Your task to perform on an android device: Open Chrome and go to settings Image 0: 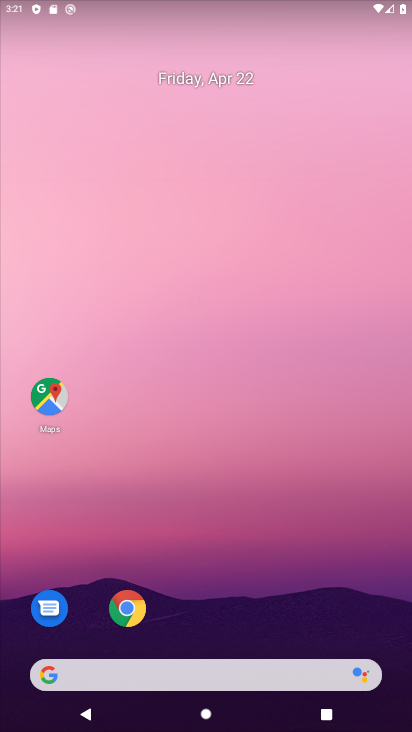
Step 0: click (128, 617)
Your task to perform on an android device: Open Chrome and go to settings Image 1: 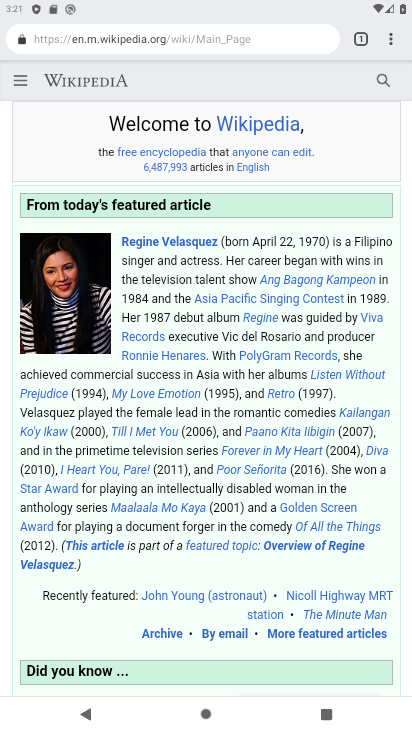
Step 1: task complete